Your task to perform on an android device: Open battery settings Image 0: 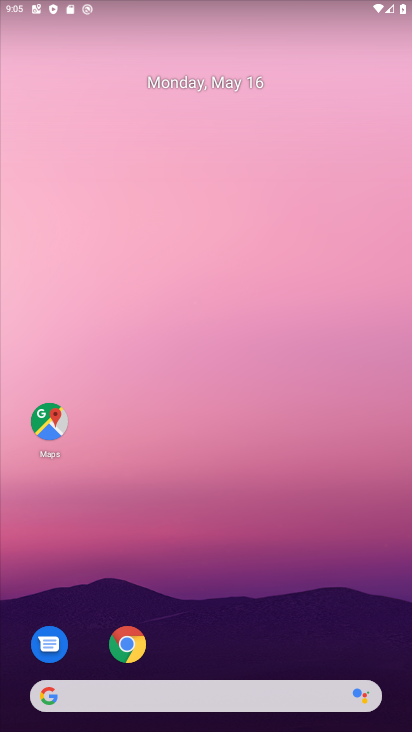
Step 0: drag from (172, 726) to (271, 0)
Your task to perform on an android device: Open battery settings Image 1: 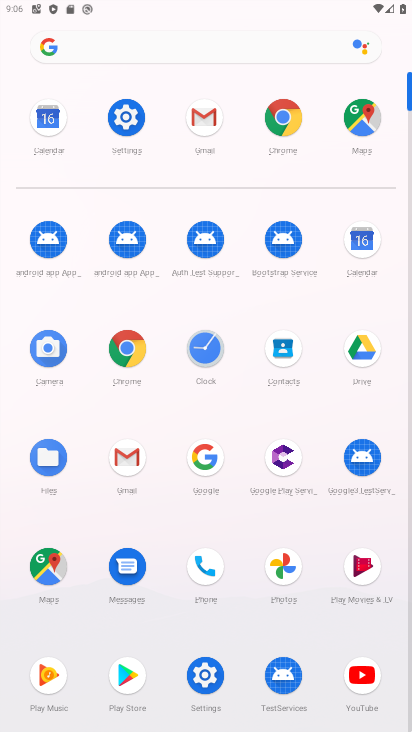
Step 1: click (135, 109)
Your task to perform on an android device: Open battery settings Image 2: 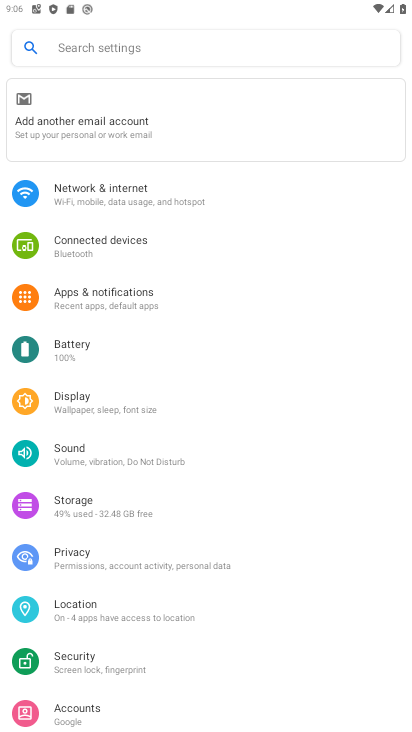
Step 2: click (88, 354)
Your task to perform on an android device: Open battery settings Image 3: 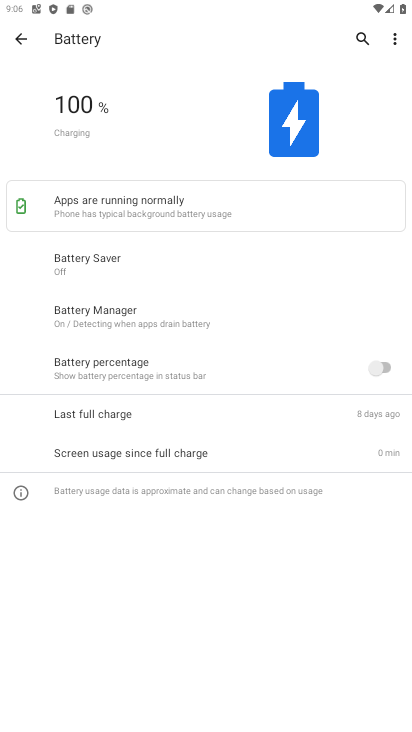
Step 3: task complete